Your task to perform on an android device: Search for seafood restaurants on Google Maps Image 0: 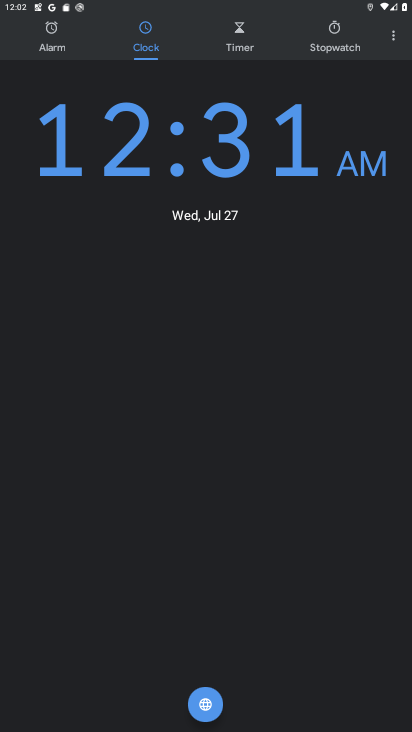
Step 0: press home button
Your task to perform on an android device: Search for seafood restaurants on Google Maps Image 1: 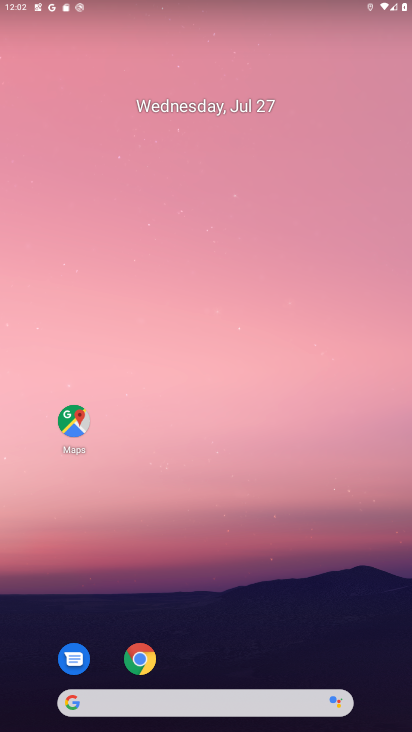
Step 1: drag from (252, 659) to (253, 0)
Your task to perform on an android device: Search for seafood restaurants on Google Maps Image 2: 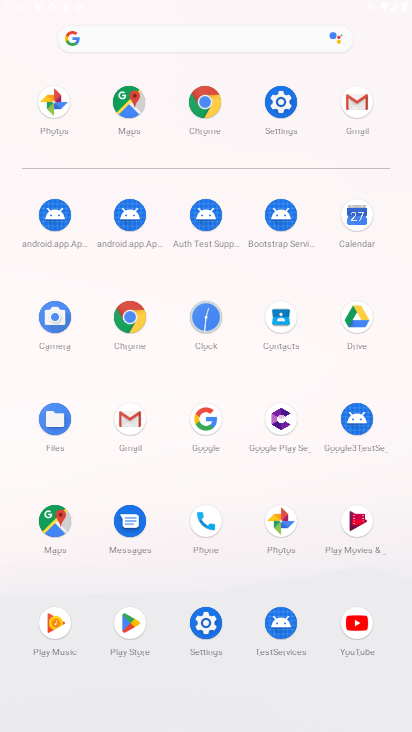
Step 2: click (55, 526)
Your task to perform on an android device: Search for seafood restaurants on Google Maps Image 3: 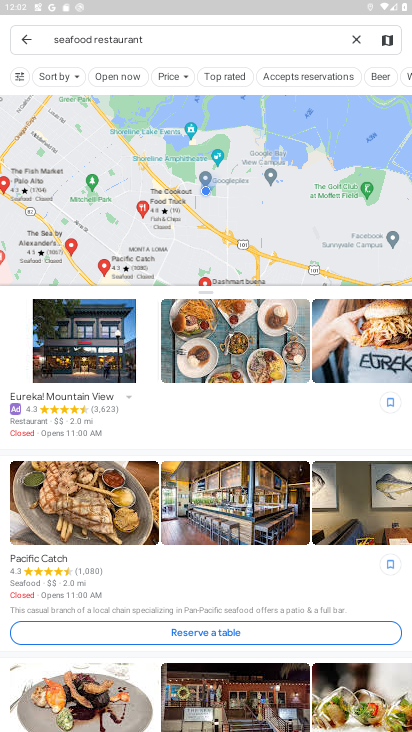
Step 3: task complete